Your task to perform on an android device: Open the stopwatch Image 0: 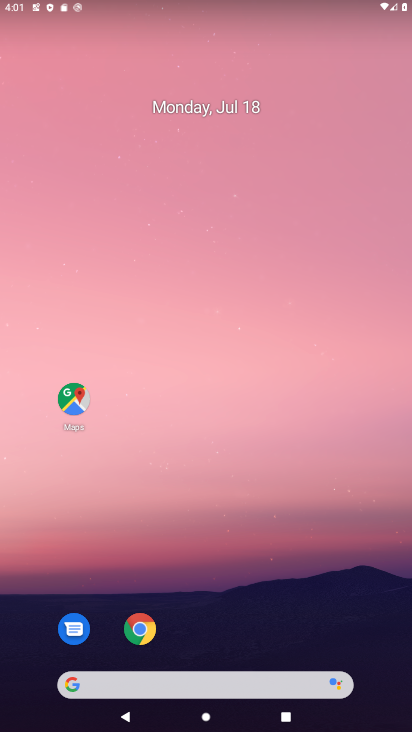
Step 0: press home button
Your task to perform on an android device: Open the stopwatch Image 1: 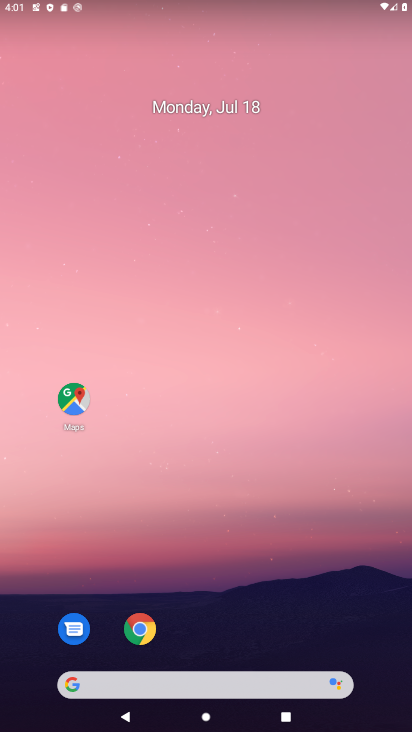
Step 1: click (141, 625)
Your task to perform on an android device: Open the stopwatch Image 2: 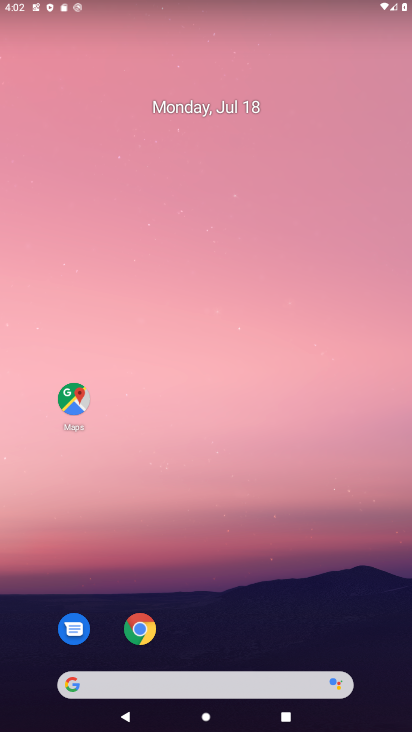
Step 2: drag from (324, 486) to (146, 50)
Your task to perform on an android device: Open the stopwatch Image 3: 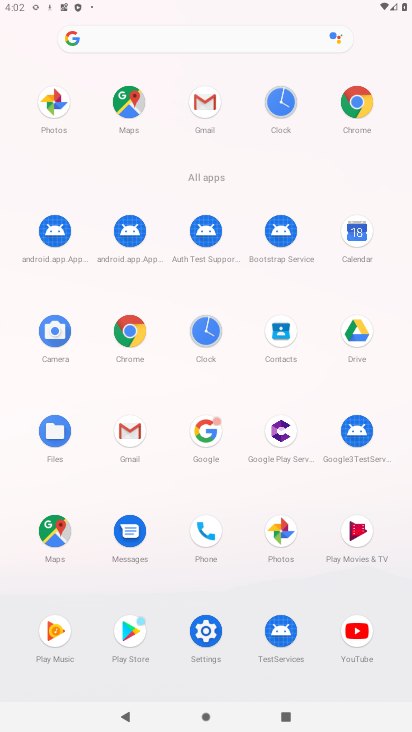
Step 3: click (281, 97)
Your task to perform on an android device: Open the stopwatch Image 4: 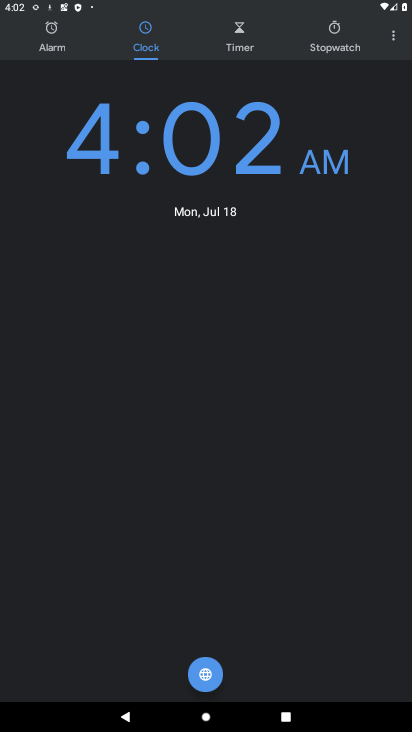
Step 4: click (339, 42)
Your task to perform on an android device: Open the stopwatch Image 5: 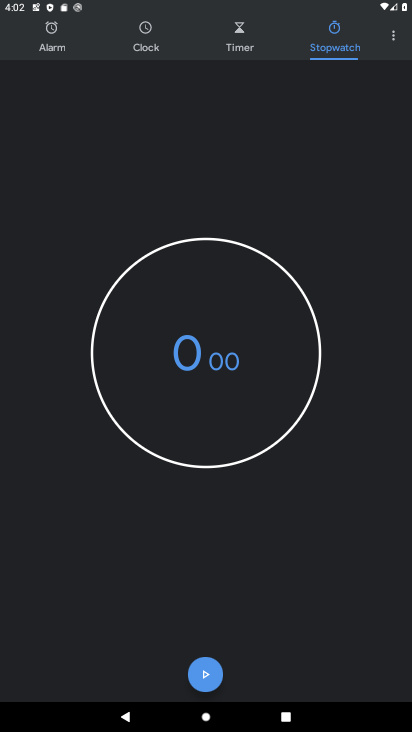
Step 5: click (208, 668)
Your task to perform on an android device: Open the stopwatch Image 6: 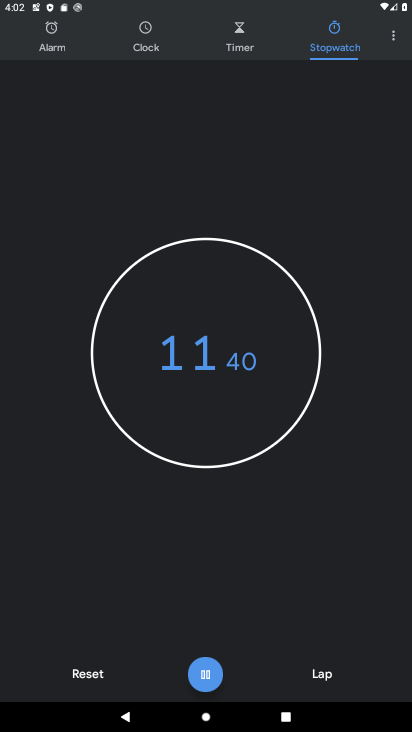
Step 6: task complete